Your task to perform on an android device: What's the weather going to be tomorrow? Image 0: 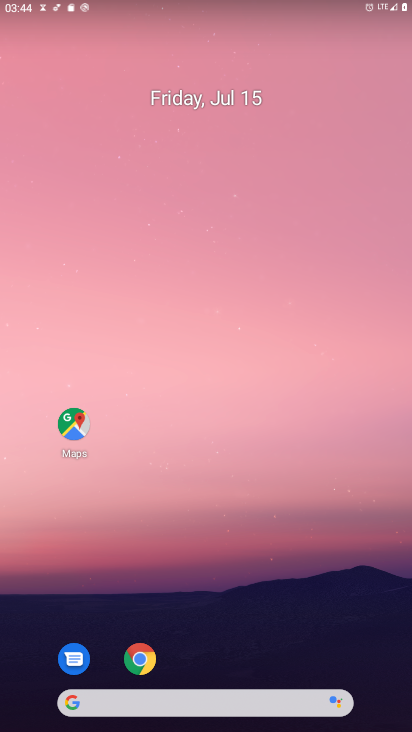
Step 0: drag from (200, 625) to (216, 307)
Your task to perform on an android device: What's the weather going to be tomorrow? Image 1: 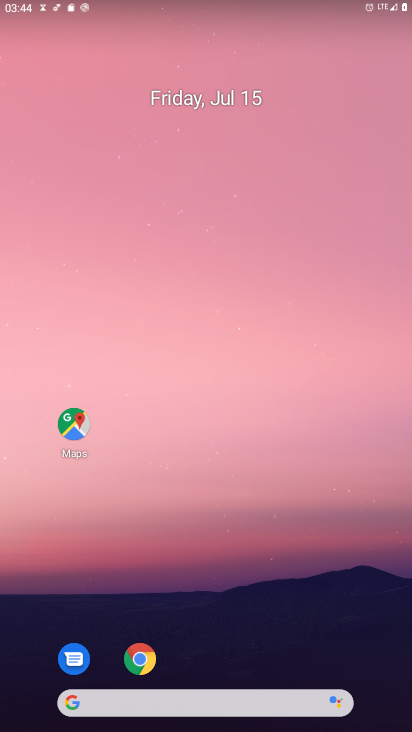
Step 1: click (145, 657)
Your task to perform on an android device: What's the weather going to be tomorrow? Image 2: 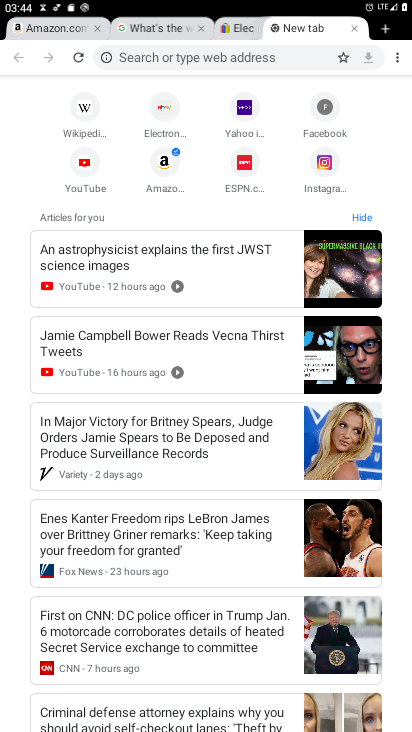
Step 2: click (165, 20)
Your task to perform on an android device: What's the weather going to be tomorrow? Image 3: 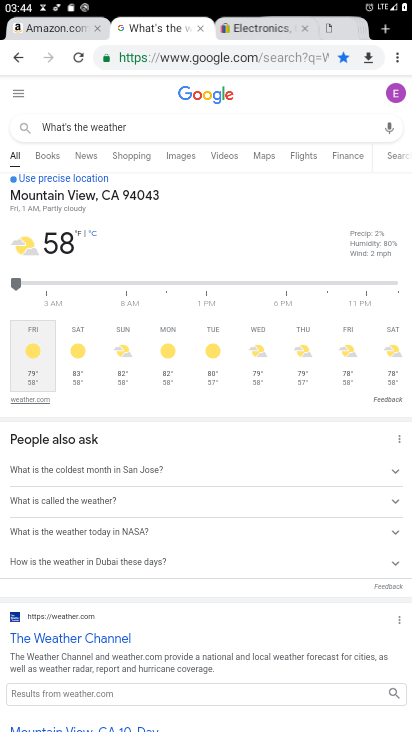
Step 3: click (197, 27)
Your task to perform on an android device: What's the weather going to be tomorrow? Image 4: 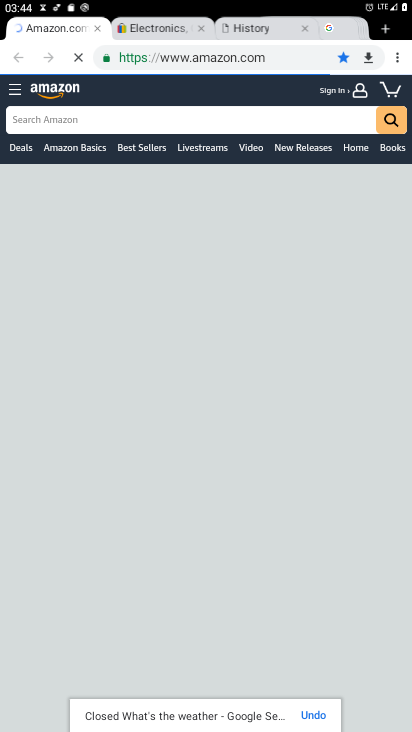
Step 4: click (382, 30)
Your task to perform on an android device: What's the weather going to be tomorrow? Image 5: 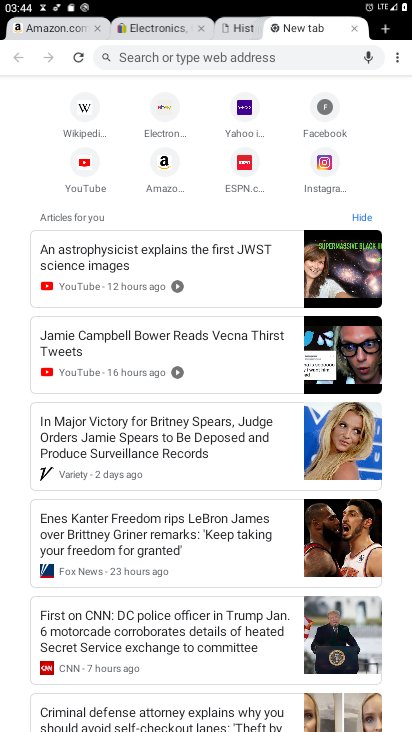
Step 5: click (202, 53)
Your task to perform on an android device: What's the weather going to be tomorrow? Image 6: 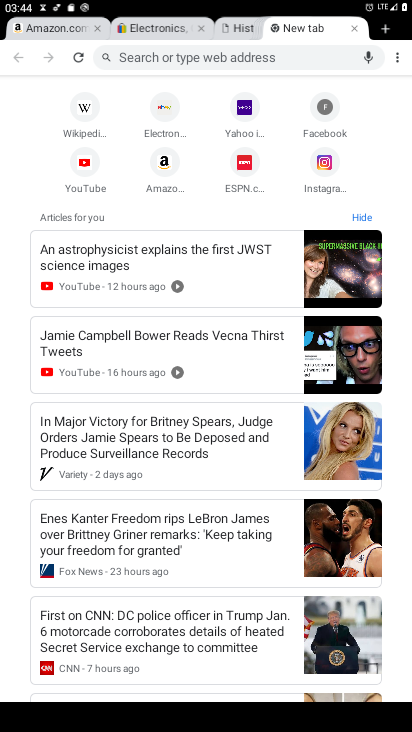
Step 6: type "What's the weather going to be tomorrow "
Your task to perform on an android device: What's the weather going to be tomorrow? Image 7: 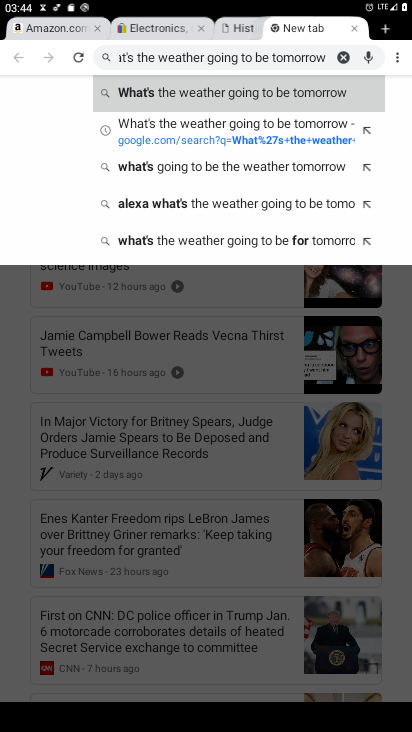
Step 7: click (155, 96)
Your task to perform on an android device: What's the weather going to be tomorrow? Image 8: 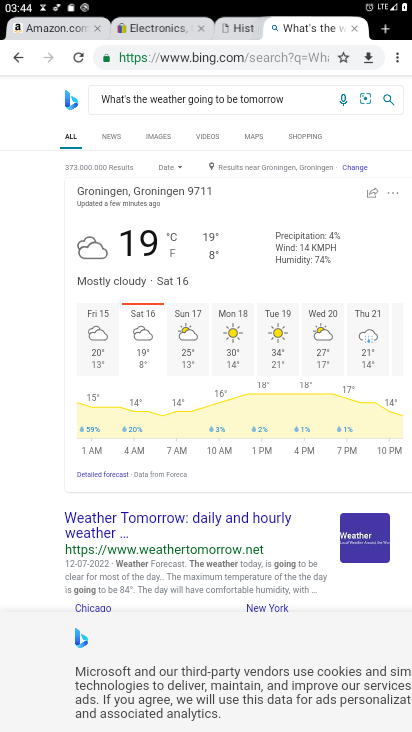
Step 8: task complete